Your task to perform on an android device: Open battery settings Image 0: 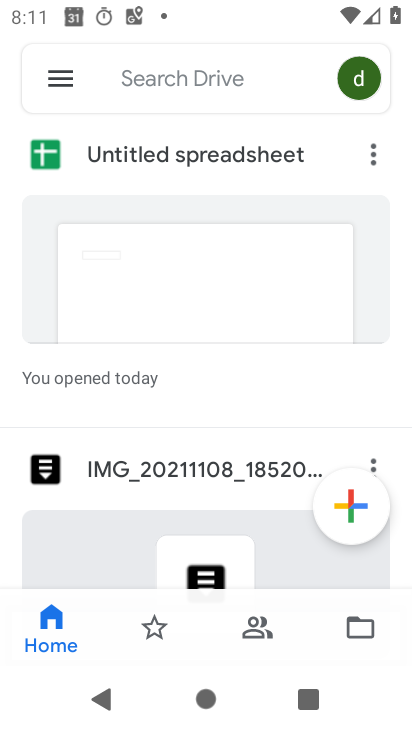
Step 0: press home button
Your task to perform on an android device: Open battery settings Image 1: 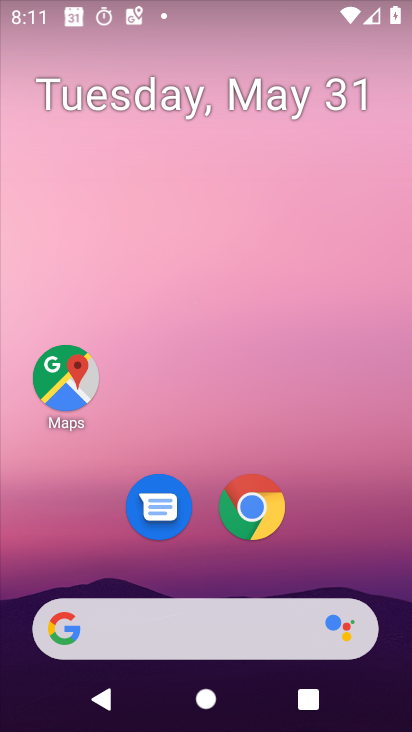
Step 1: drag from (324, 567) to (326, 7)
Your task to perform on an android device: Open battery settings Image 2: 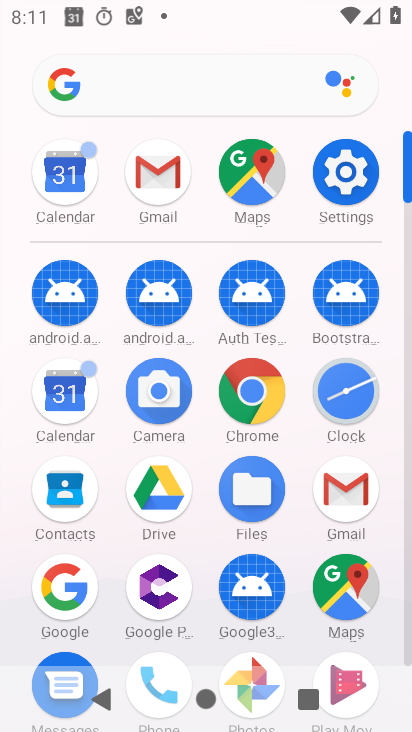
Step 2: click (348, 176)
Your task to perform on an android device: Open battery settings Image 3: 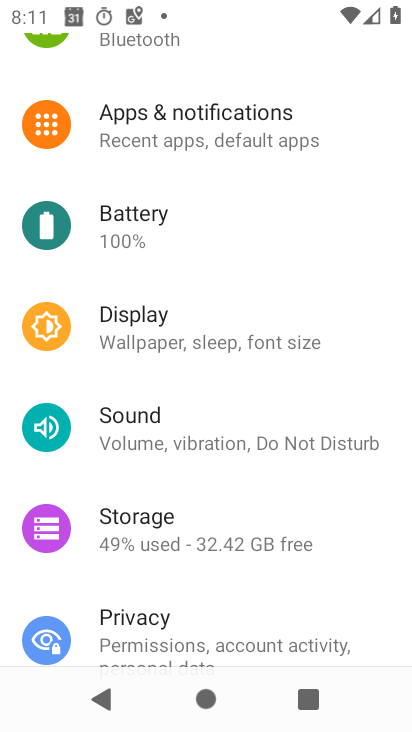
Step 3: click (114, 228)
Your task to perform on an android device: Open battery settings Image 4: 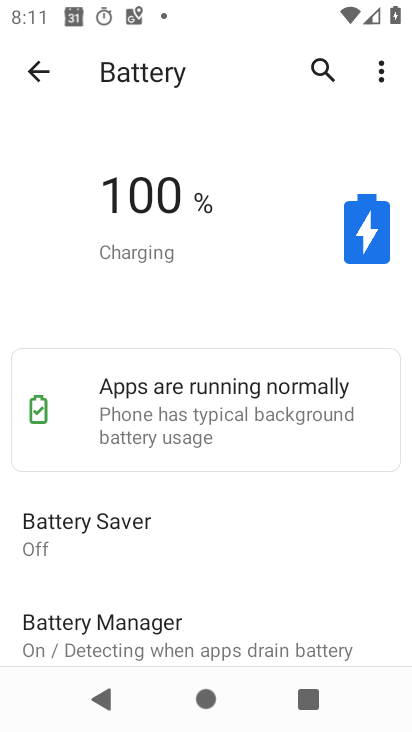
Step 4: task complete